Your task to perform on an android device: toggle pop-ups in chrome Image 0: 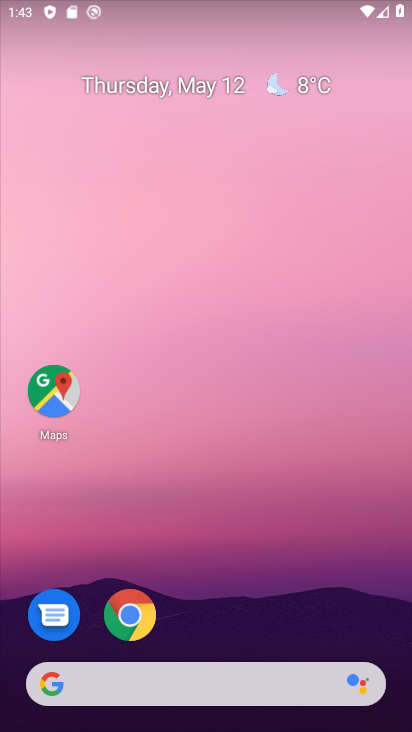
Step 0: click (124, 620)
Your task to perform on an android device: toggle pop-ups in chrome Image 1: 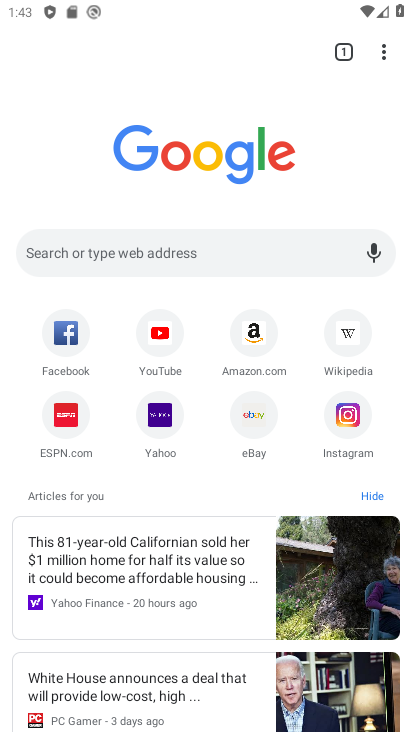
Step 1: click (375, 53)
Your task to perform on an android device: toggle pop-ups in chrome Image 2: 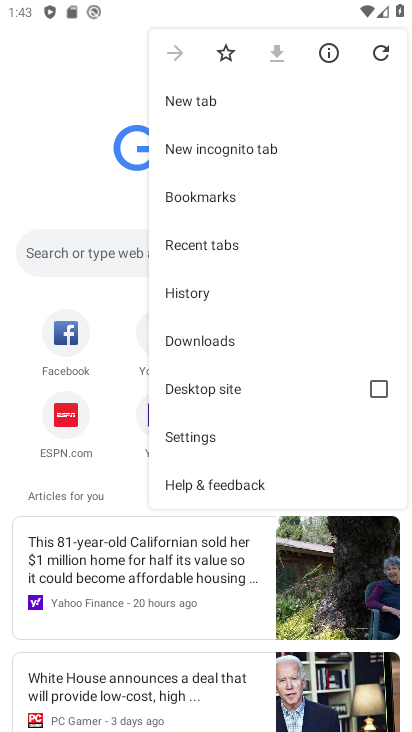
Step 2: click (212, 448)
Your task to perform on an android device: toggle pop-ups in chrome Image 3: 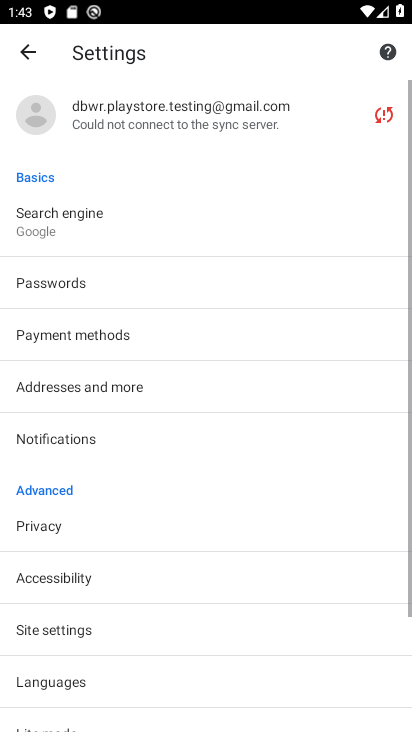
Step 3: drag from (217, 601) to (177, 375)
Your task to perform on an android device: toggle pop-ups in chrome Image 4: 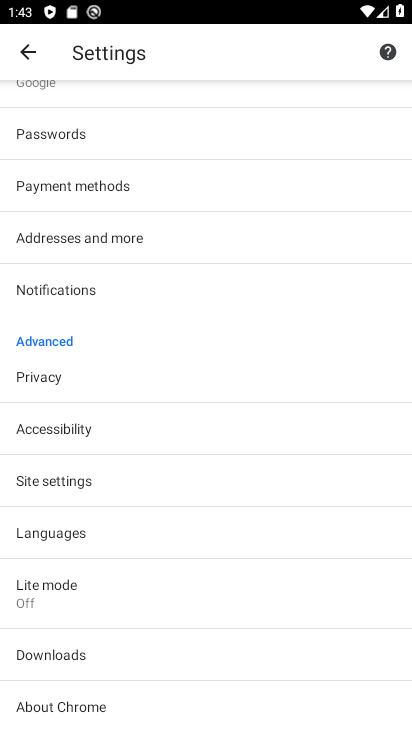
Step 4: click (117, 480)
Your task to perform on an android device: toggle pop-ups in chrome Image 5: 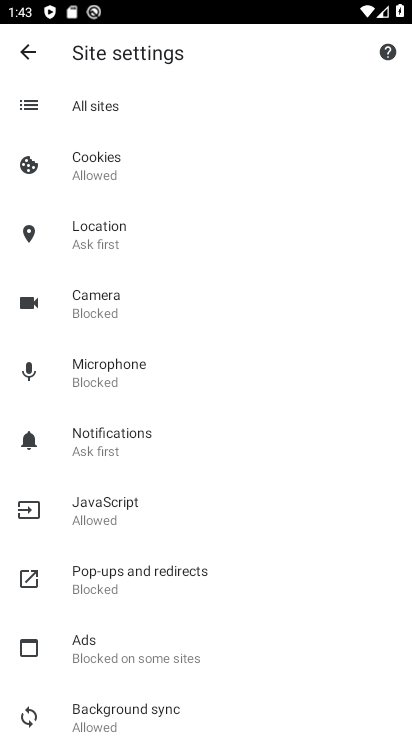
Step 5: click (166, 568)
Your task to perform on an android device: toggle pop-ups in chrome Image 6: 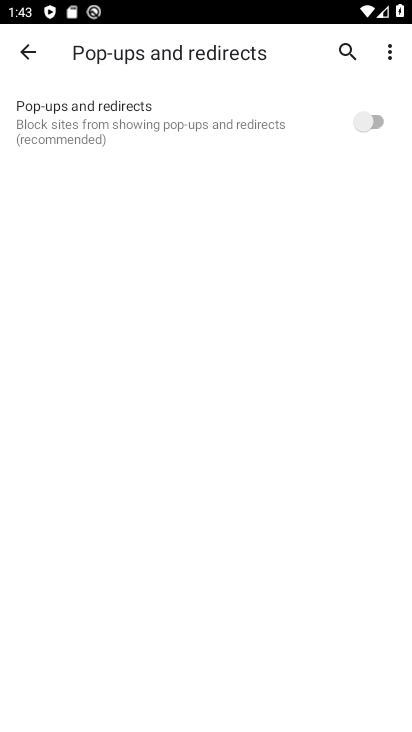
Step 6: click (362, 114)
Your task to perform on an android device: toggle pop-ups in chrome Image 7: 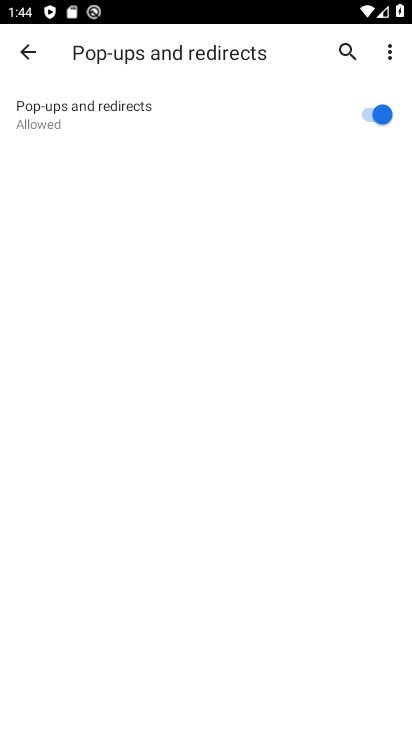
Step 7: task complete